Your task to perform on an android device: Open Google Chrome Image 0: 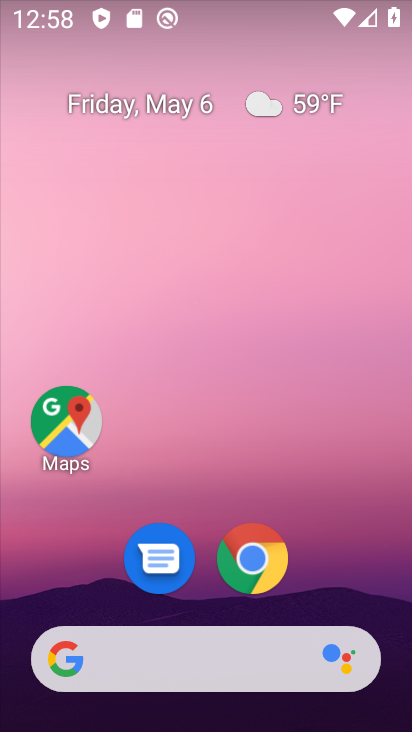
Step 0: click (248, 561)
Your task to perform on an android device: Open Google Chrome Image 1: 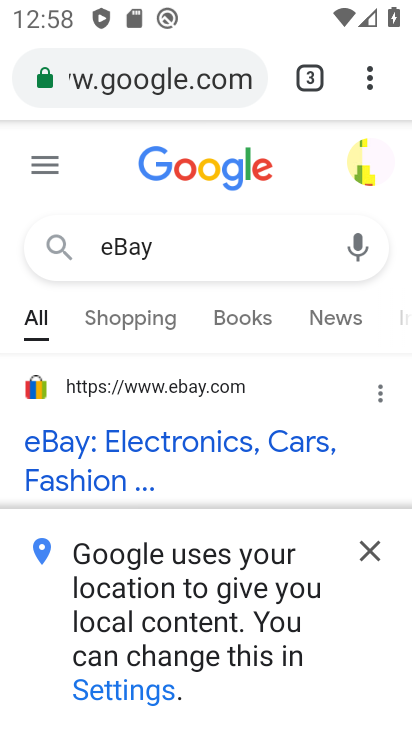
Step 1: task complete